Your task to perform on an android device: Go to Reddit.com Image 0: 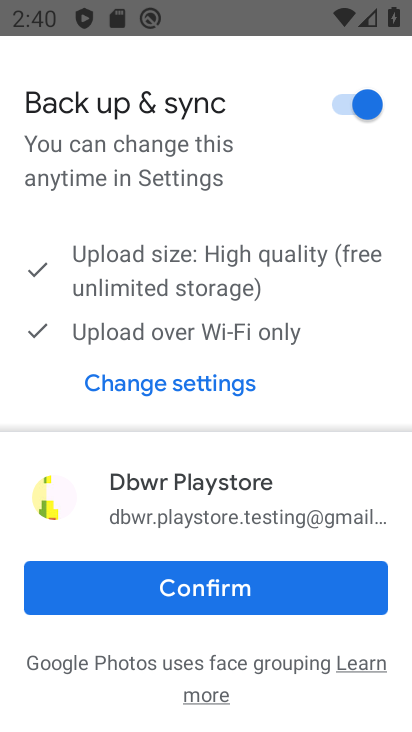
Step 0: press home button
Your task to perform on an android device: Go to Reddit.com Image 1: 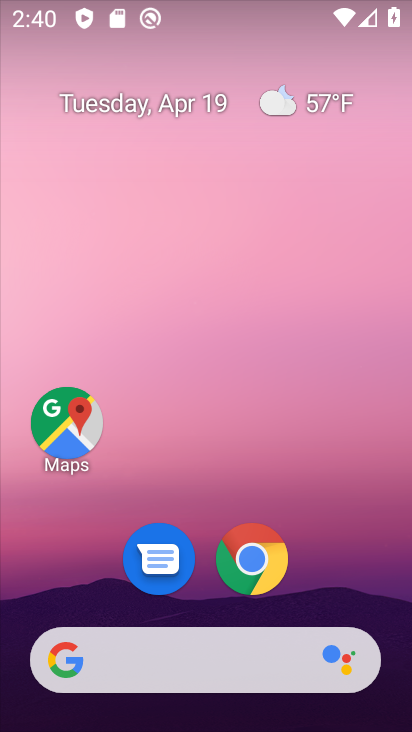
Step 1: click (256, 564)
Your task to perform on an android device: Go to Reddit.com Image 2: 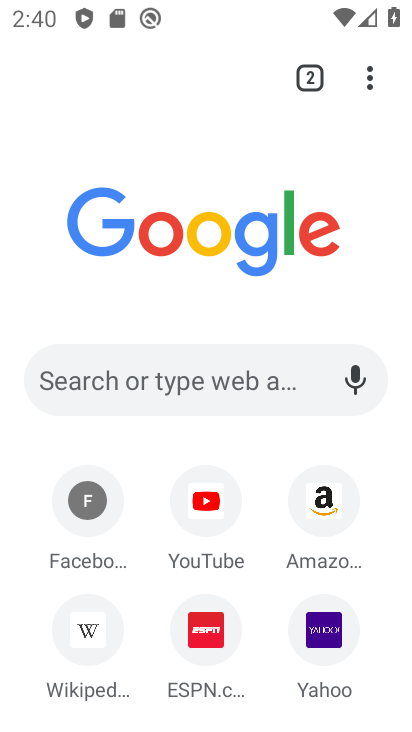
Step 2: click (108, 388)
Your task to perform on an android device: Go to Reddit.com Image 3: 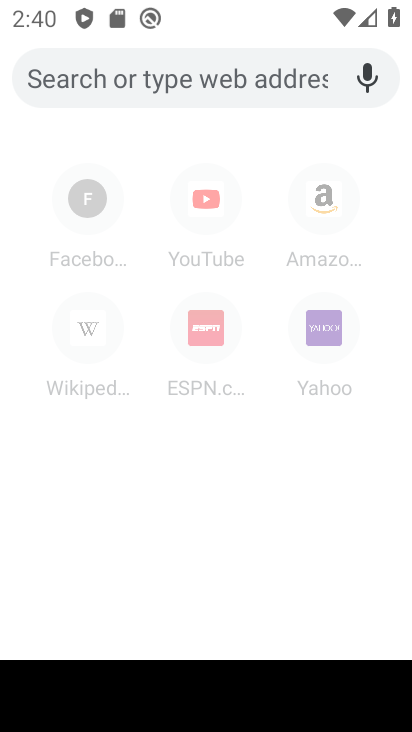
Step 3: type "Reddit.com"
Your task to perform on an android device: Go to Reddit.com Image 4: 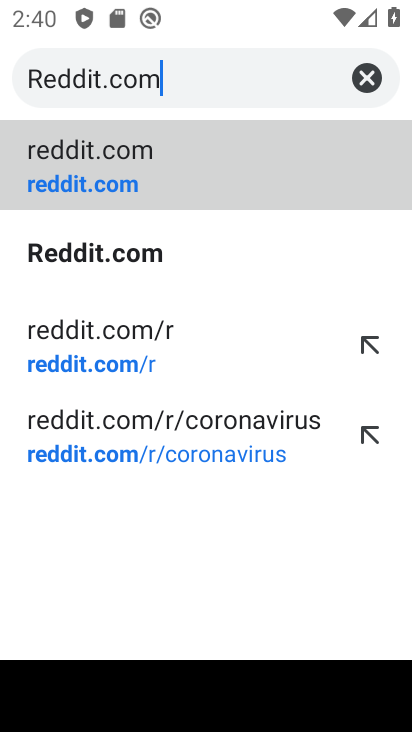
Step 4: click (155, 249)
Your task to perform on an android device: Go to Reddit.com Image 5: 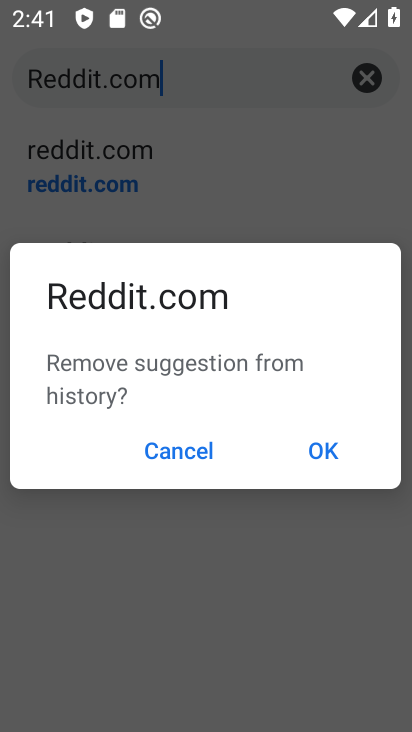
Step 5: click (323, 455)
Your task to perform on an android device: Go to Reddit.com Image 6: 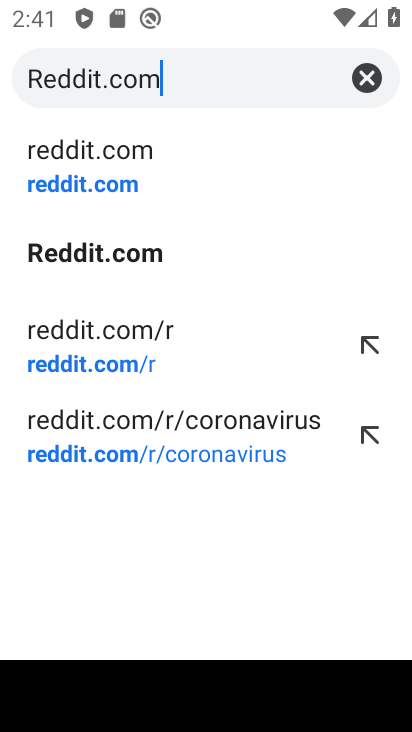
Step 6: click (136, 176)
Your task to perform on an android device: Go to Reddit.com Image 7: 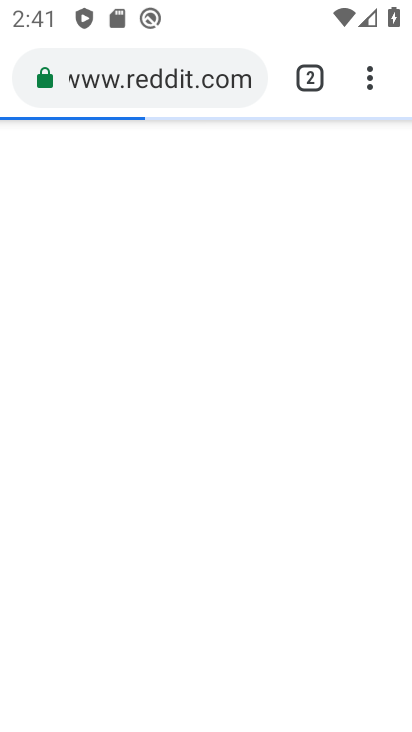
Step 7: task complete